Your task to perform on an android device: Open the stopwatch Image 0: 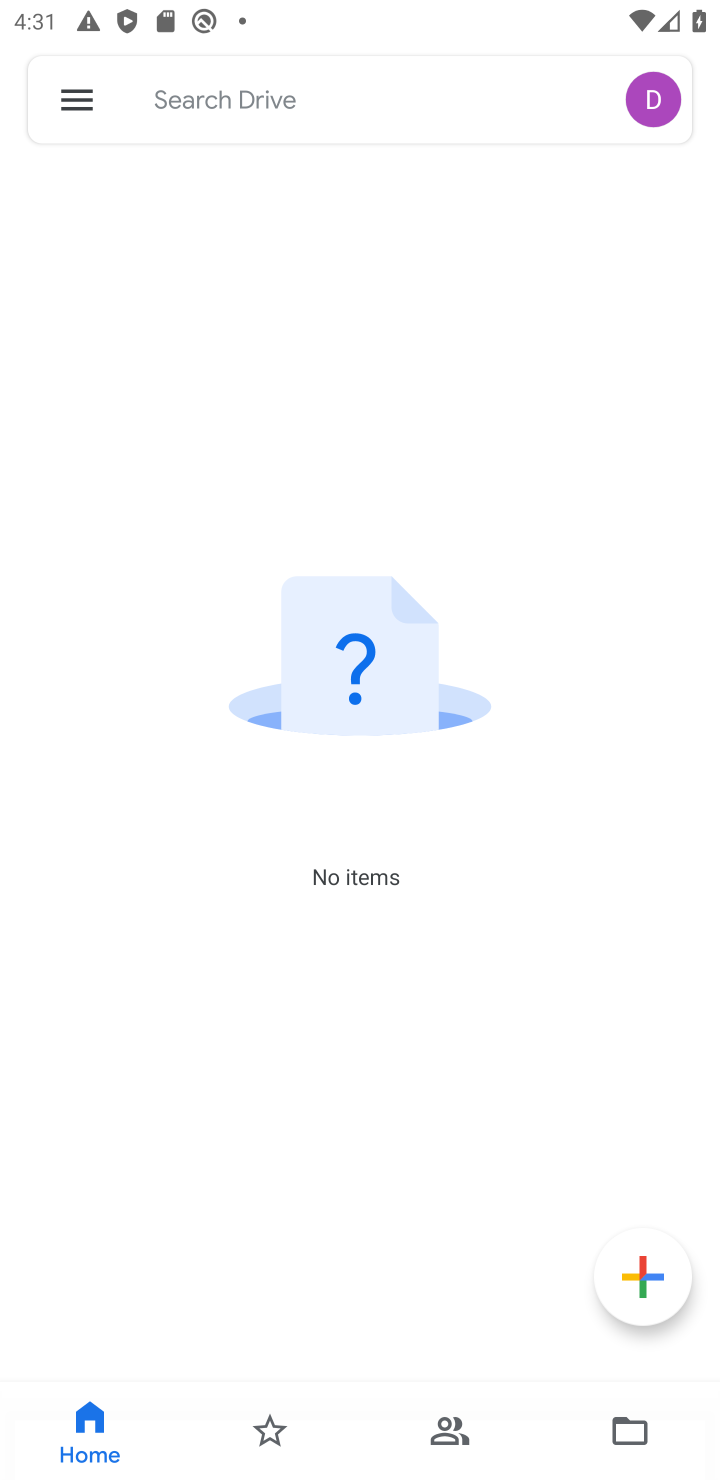
Step 0: press home button
Your task to perform on an android device: Open the stopwatch Image 1: 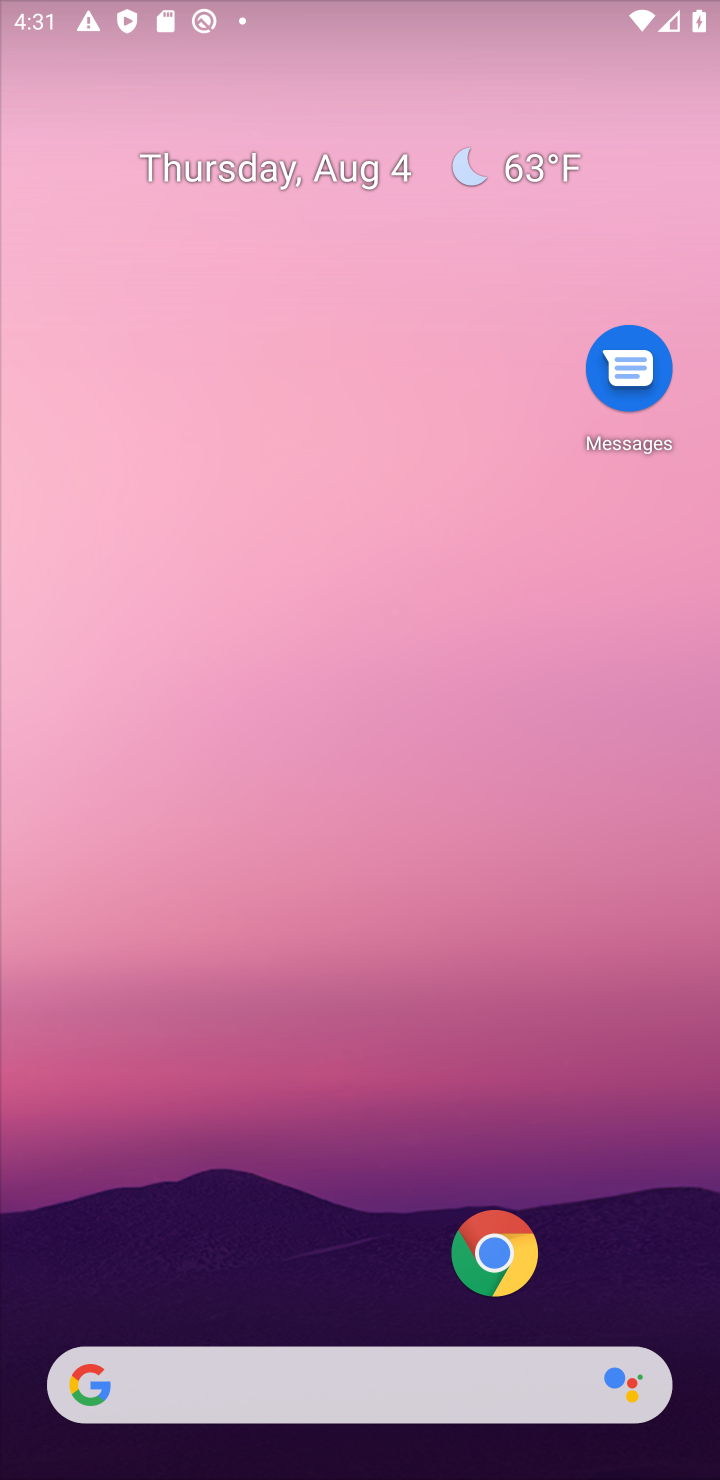
Step 1: drag from (285, 1344) to (394, 574)
Your task to perform on an android device: Open the stopwatch Image 2: 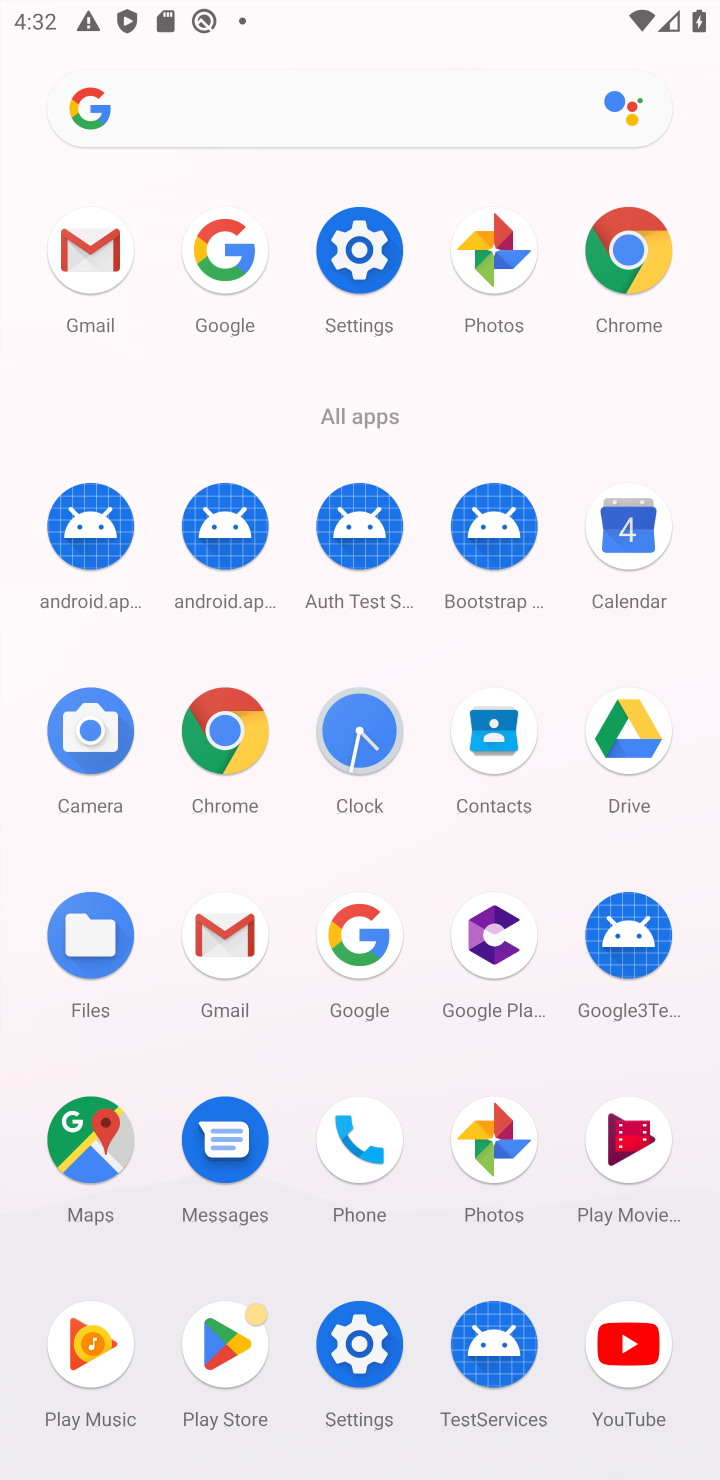
Step 2: click (359, 755)
Your task to perform on an android device: Open the stopwatch Image 3: 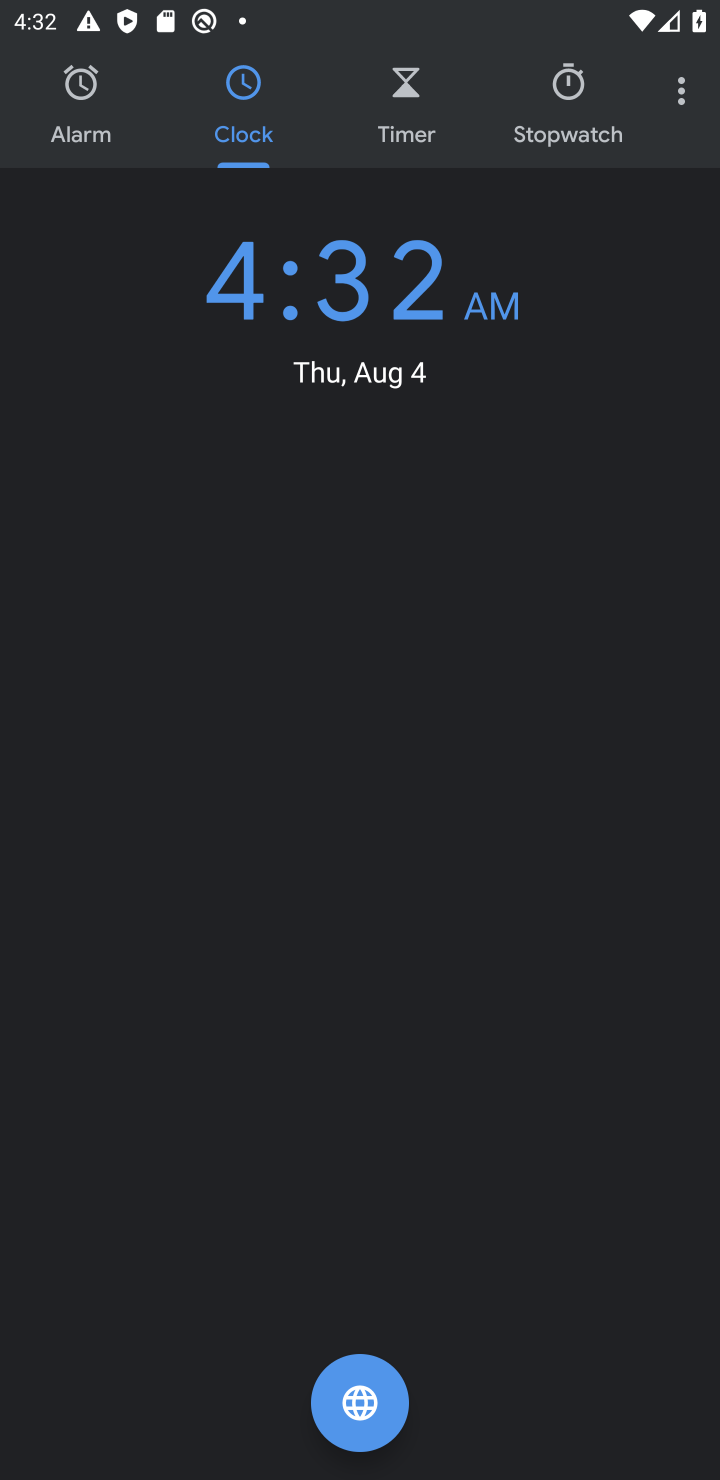
Step 3: click (553, 127)
Your task to perform on an android device: Open the stopwatch Image 4: 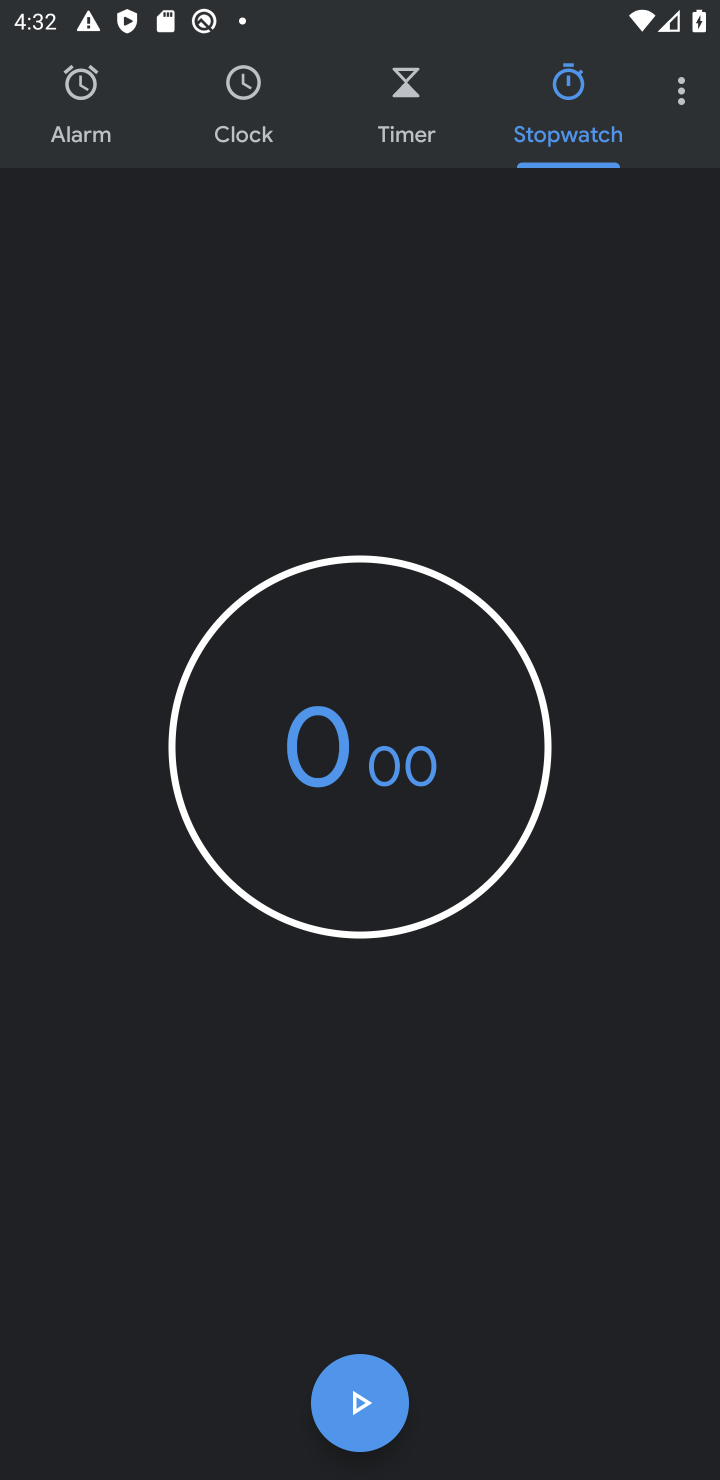
Step 4: task complete